Your task to perform on an android device: Open Google Image 0: 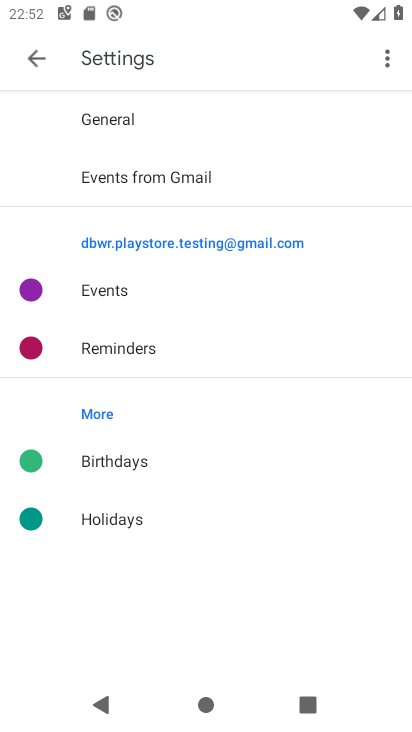
Step 0: press home button
Your task to perform on an android device: Open Google Image 1: 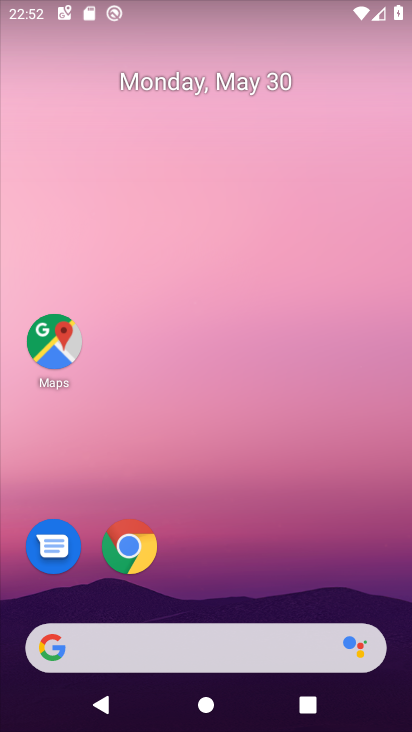
Step 1: click (123, 639)
Your task to perform on an android device: Open Google Image 2: 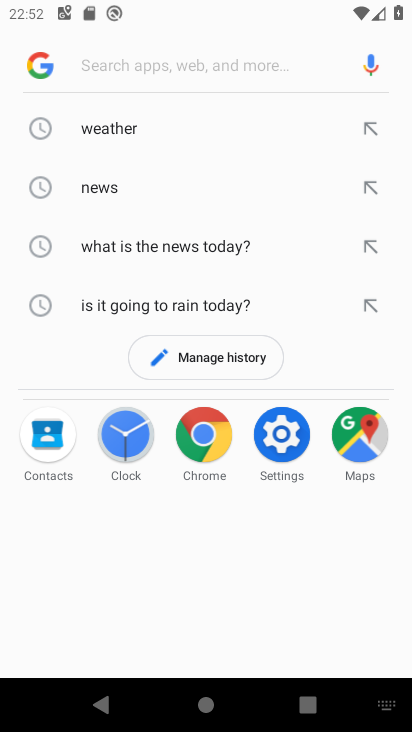
Step 2: click (63, 67)
Your task to perform on an android device: Open Google Image 3: 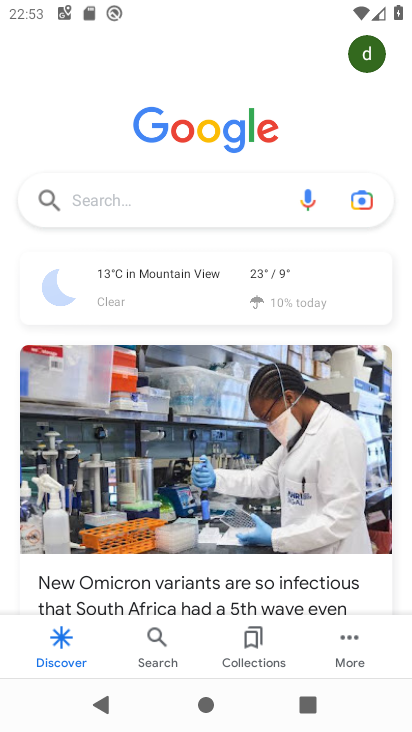
Step 3: task complete